Your task to perform on an android device: Search for a new bronzer Image 0: 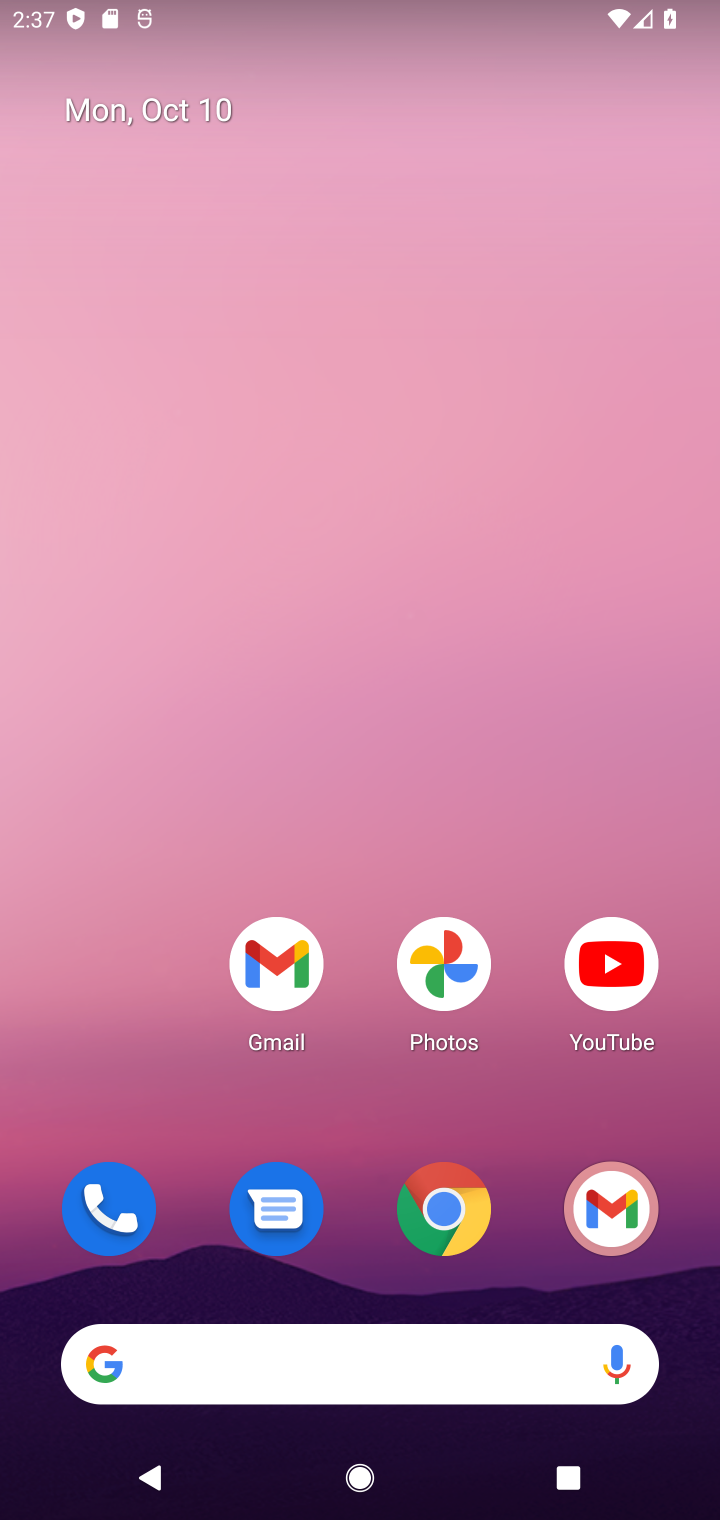
Step 0: click (447, 1208)
Your task to perform on an android device: Search for a new bronzer Image 1: 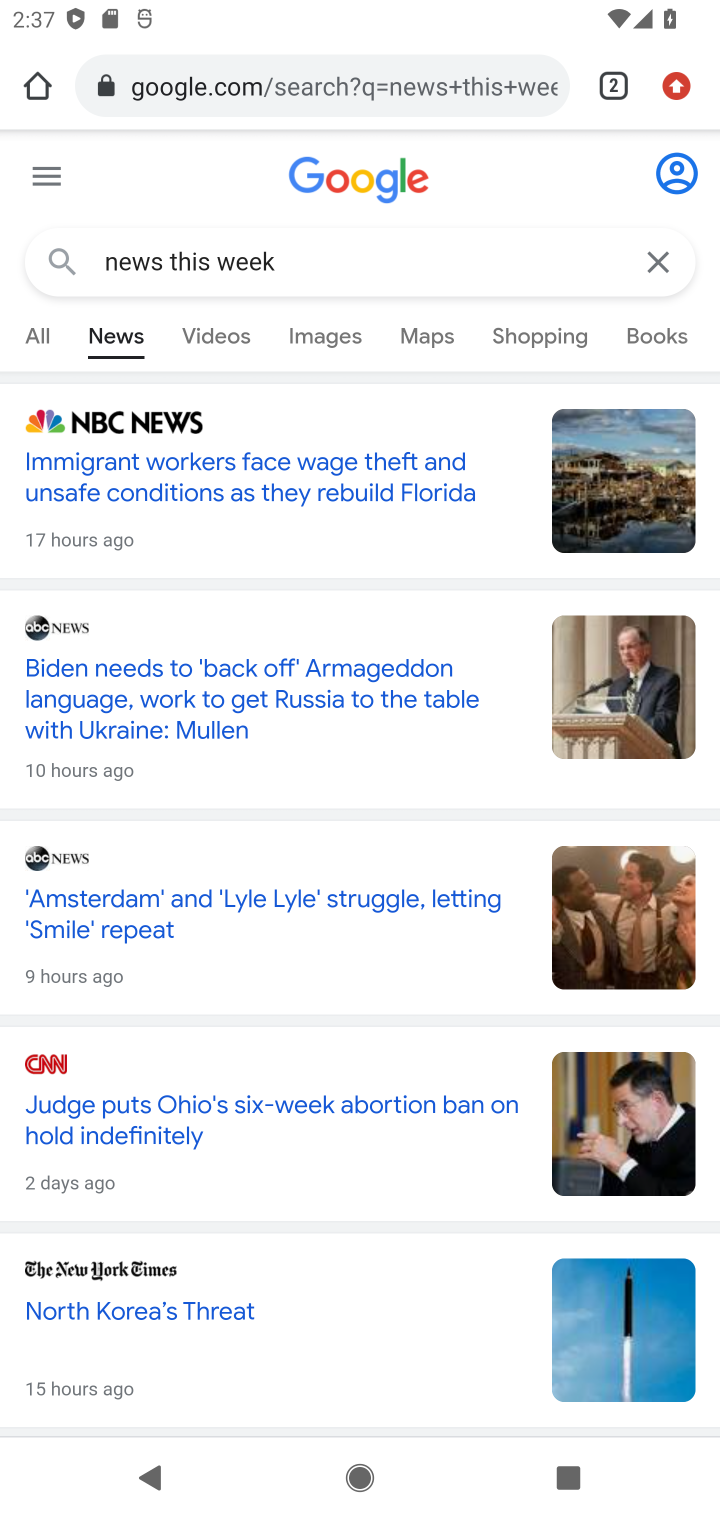
Step 1: click (384, 256)
Your task to perform on an android device: Search for a new bronzer Image 2: 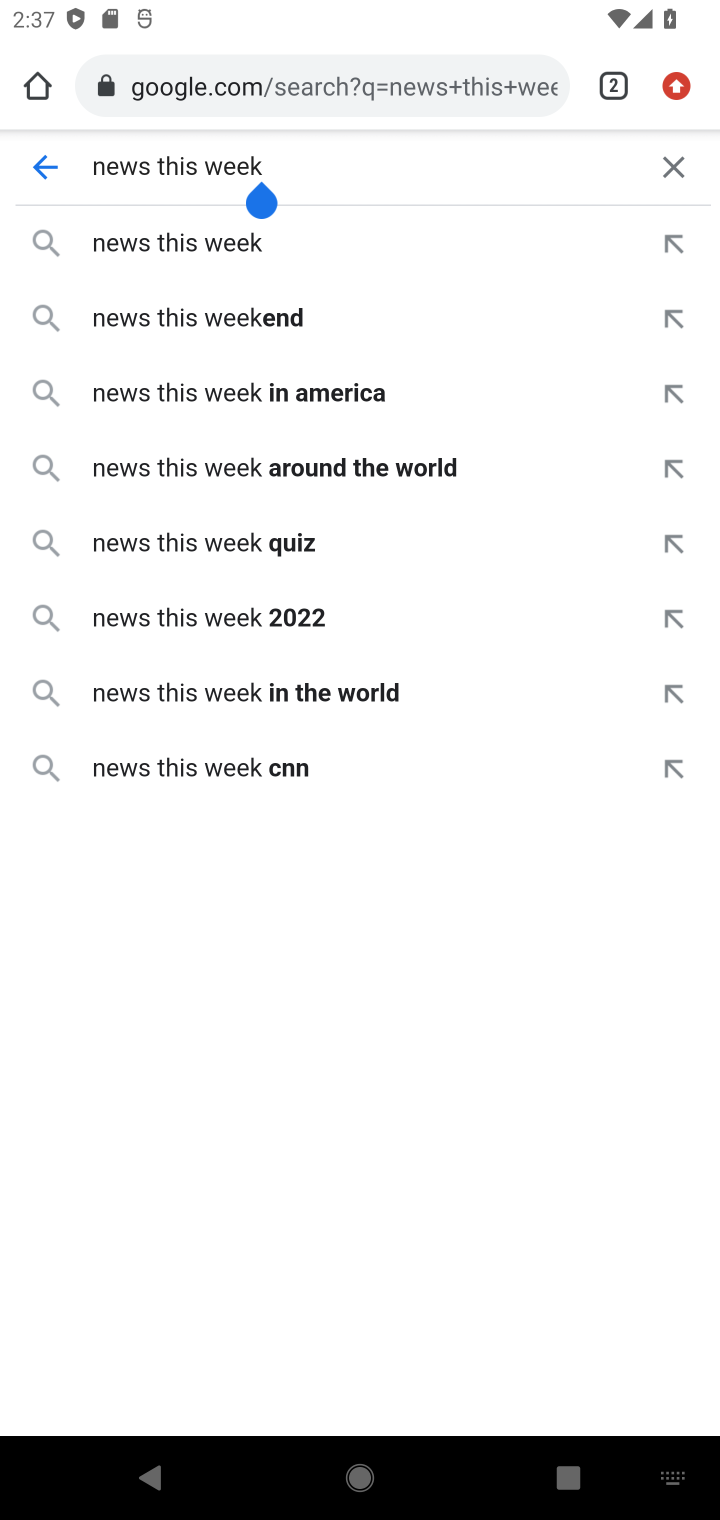
Step 2: click (681, 173)
Your task to perform on an android device: Search for a new bronzer Image 3: 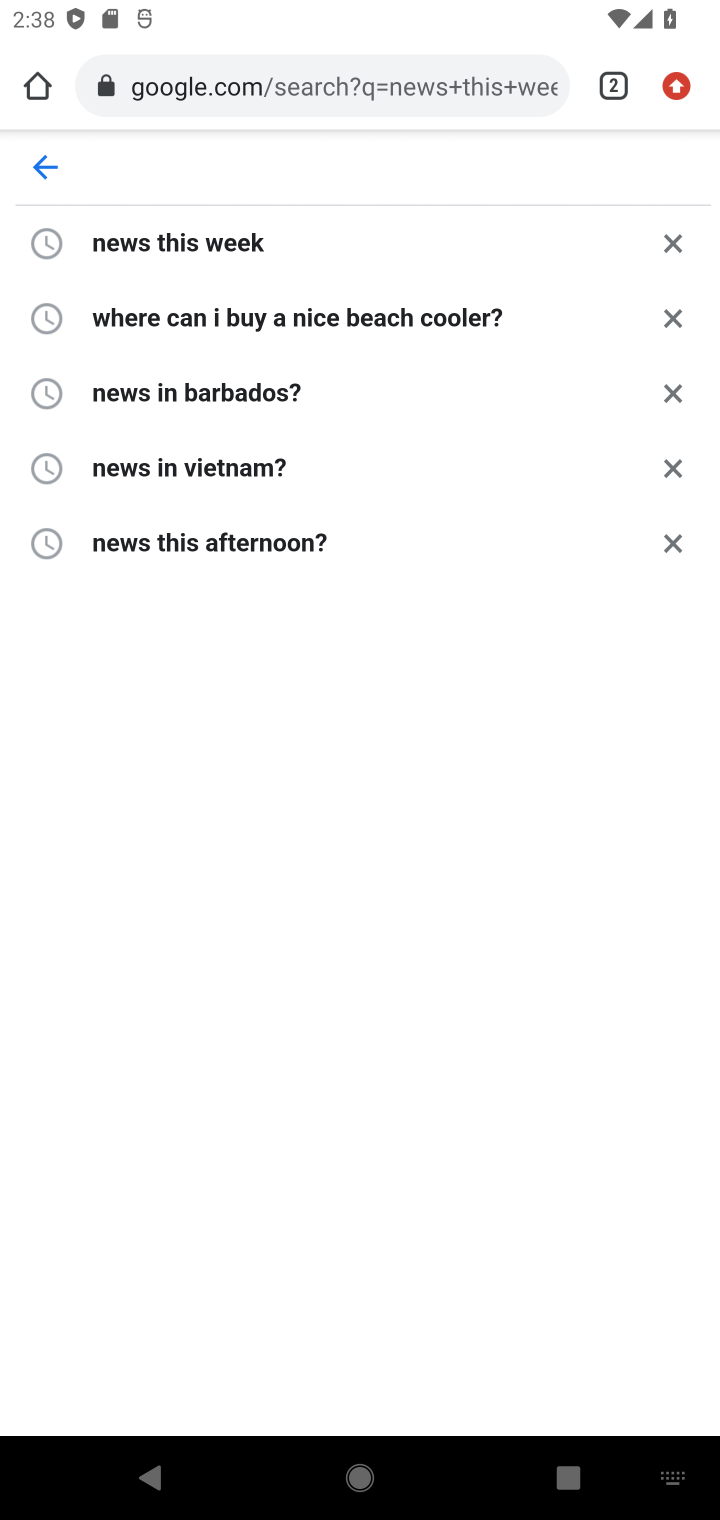
Step 3: type "new bronzer"
Your task to perform on an android device: Search for a new bronzer Image 4: 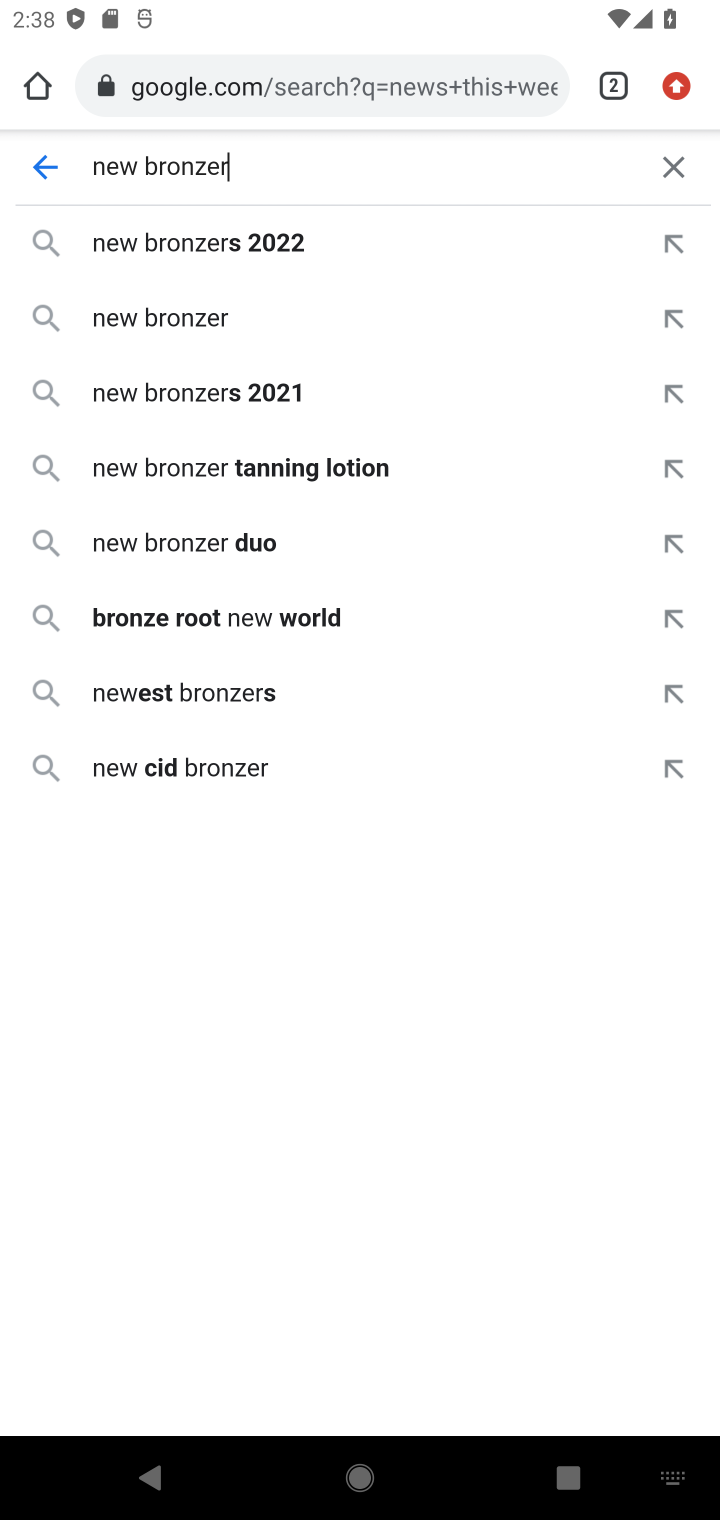
Step 4: click (208, 337)
Your task to perform on an android device: Search for a new bronzer Image 5: 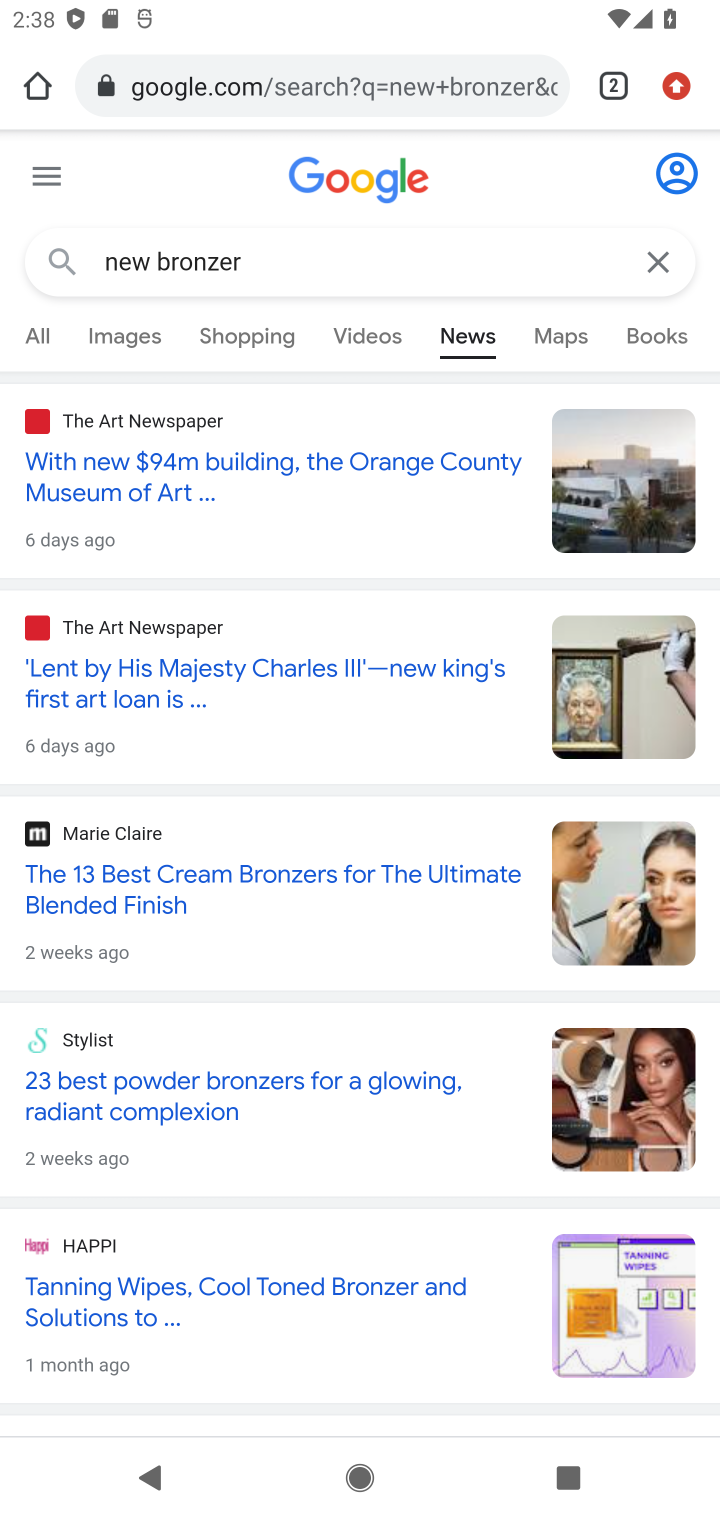
Step 5: click (48, 333)
Your task to perform on an android device: Search for a new bronzer Image 6: 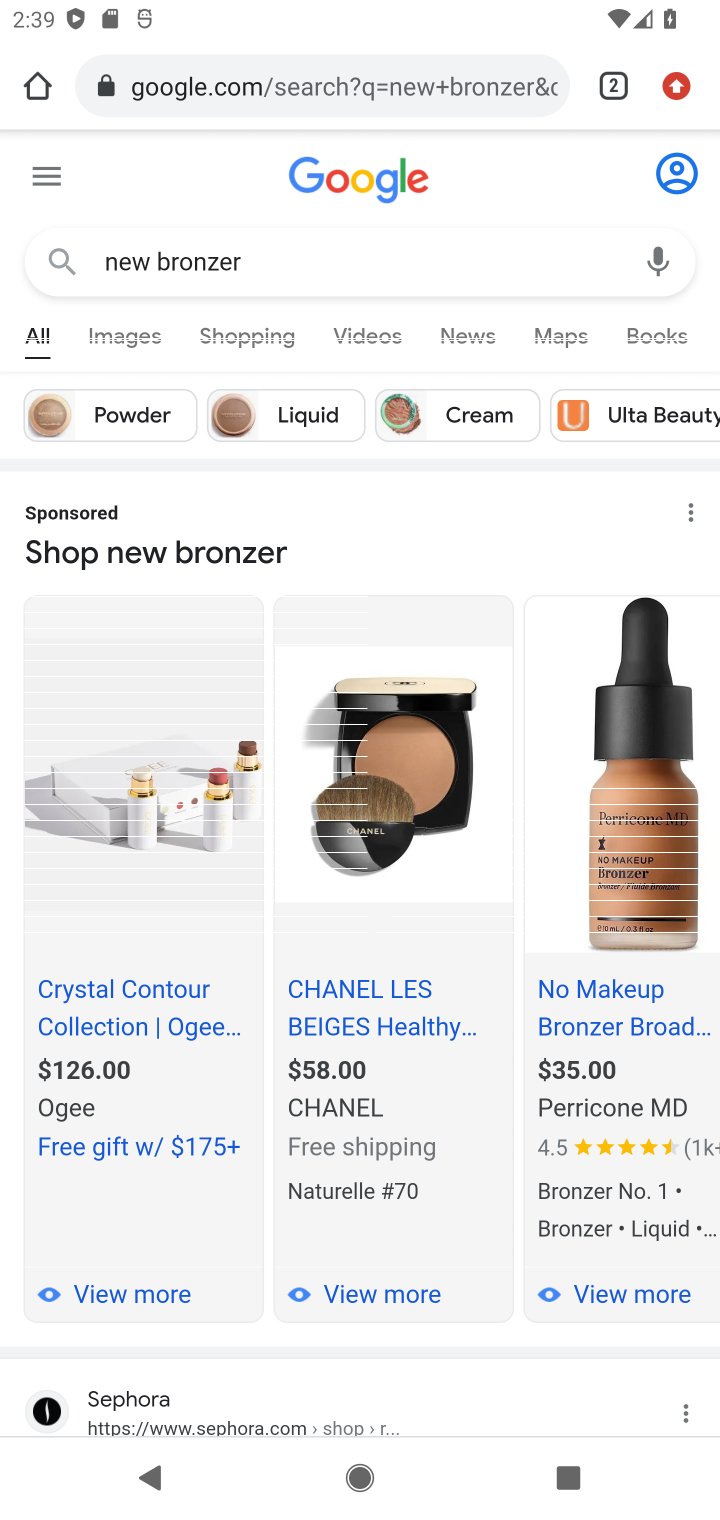
Step 6: task complete